Your task to perform on an android device: turn on javascript in the chrome app Image 0: 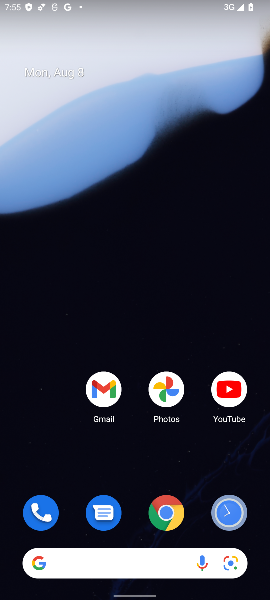
Step 0: click (161, 504)
Your task to perform on an android device: turn on javascript in the chrome app Image 1: 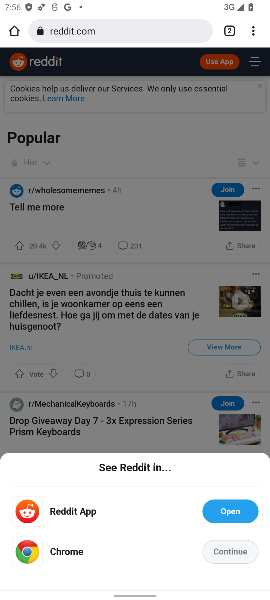
Step 1: click (257, 34)
Your task to perform on an android device: turn on javascript in the chrome app Image 2: 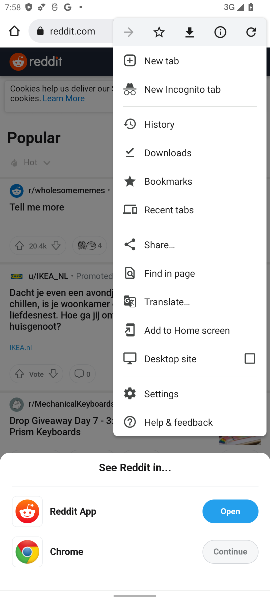
Step 2: click (185, 386)
Your task to perform on an android device: turn on javascript in the chrome app Image 3: 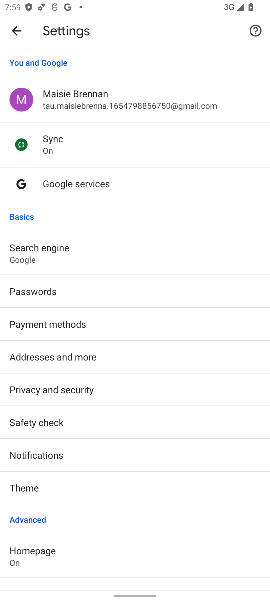
Step 3: drag from (107, 532) to (172, 93)
Your task to perform on an android device: turn on javascript in the chrome app Image 4: 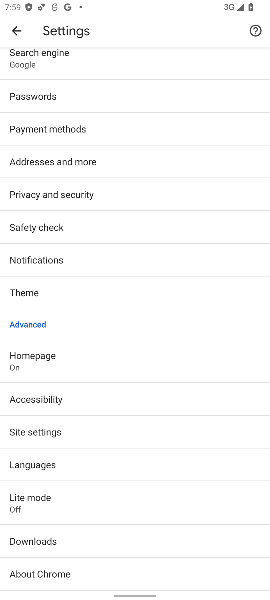
Step 4: click (70, 436)
Your task to perform on an android device: turn on javascript in the chrome app Image 5: 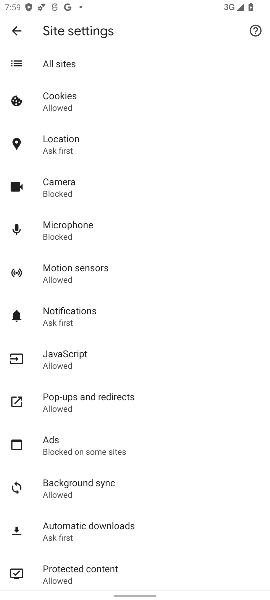
Step 5: click (86, 364)
Your task to perform on an android device: turn on javascript in the chrome app Image 6: 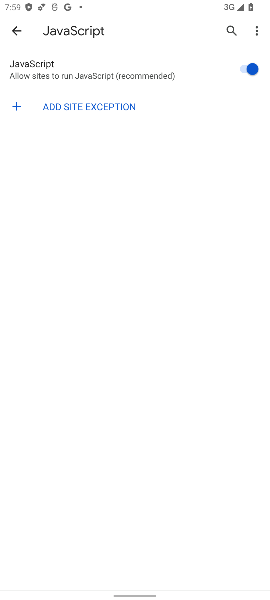
Step 6: task complete